Your task to perform on an android device: Go to internet settings Image 0: 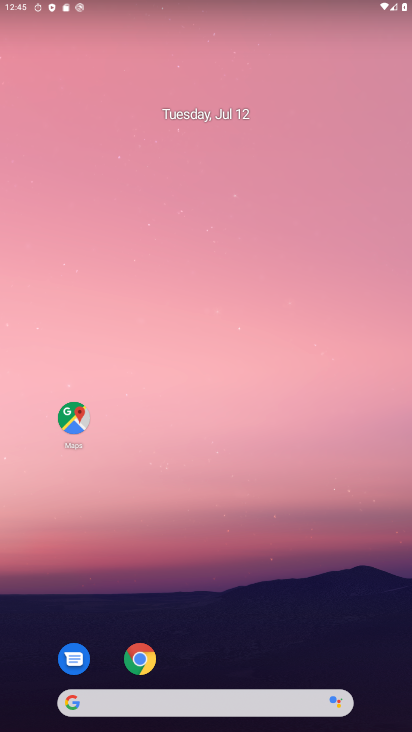
Step 0: drag from (289, 454) to (392, 7)
Your task to perform on an android device: Go to internet settings Image 1: 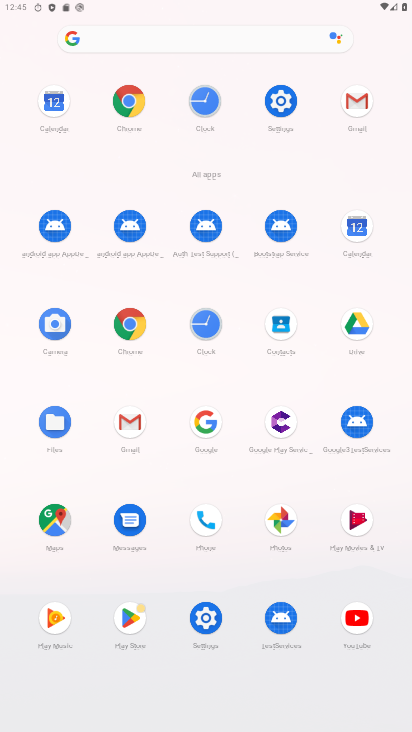
Step 1: click (283, 95)
Your task to perform on an android device: Go to internet settings Image 2: 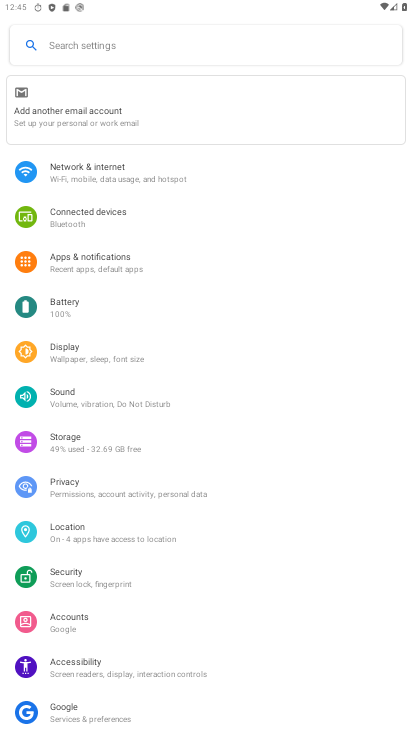
Step 2: click (147, 181)
Your task to perform on an android device: Go to internet settings Image 3: 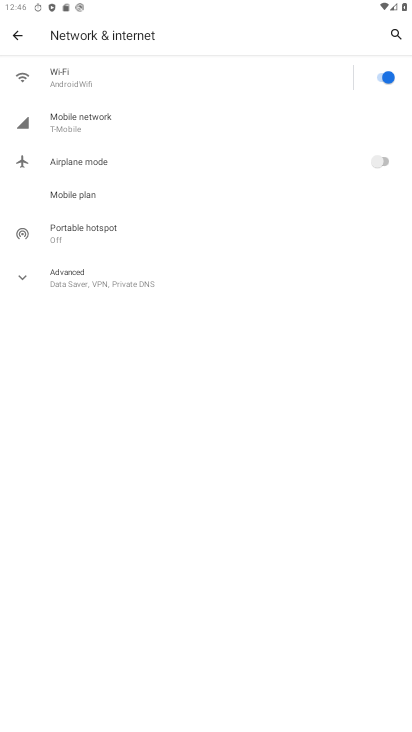
Step 3: click (61, 285)
Your task to perform on an android device: Go to internet settings Image 4: 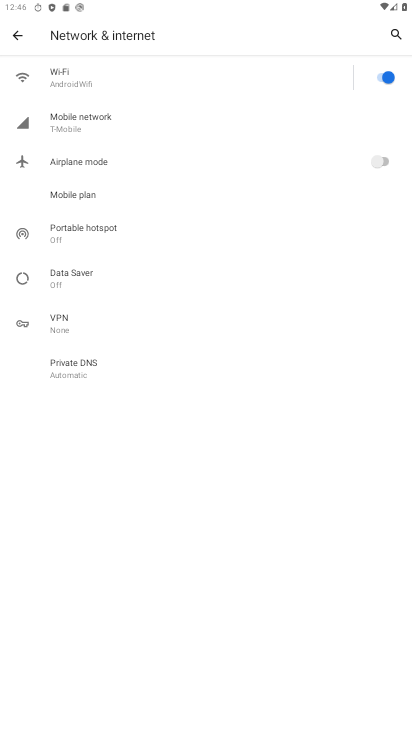
Step 4: task complete